Your task to perform on an android device: turn off translation in the chrome app Image 0: 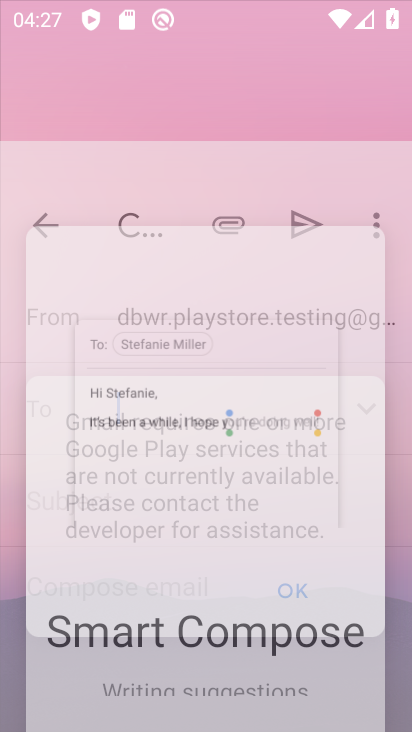
Step 0: press home button
Your task to perform on an android device: turn off translation in the chrome app Image 1: 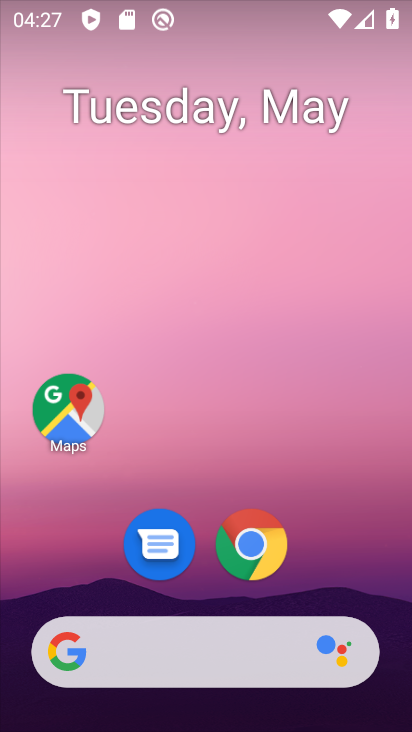
Step 1: click (252, 547)
Your task to perform on an android device: turn off translation in the chrome app Image 2: 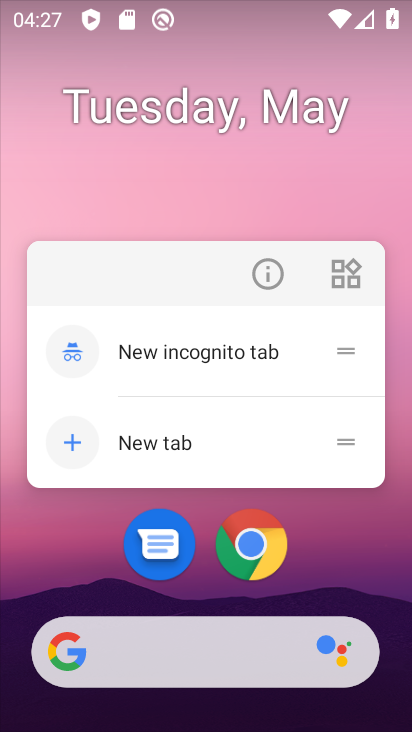
Step 2: click (252, 547)
Your task to perform on an android device: turn off translation in the chrome app Image 3: 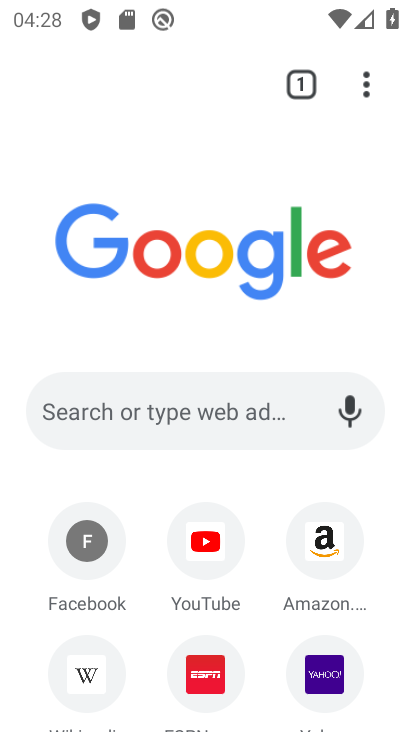
Step 3: click (357, 80)
Your task to perform on an android device: turn off translation in the chrome app Image 4: 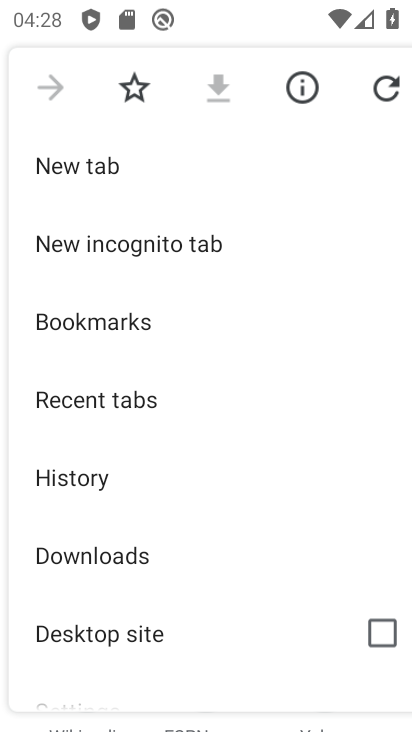
Step 4: drag from (119, 655) to (181, 133)
Your task to perform on an android device: turn off translation in the chrome app Image 5: 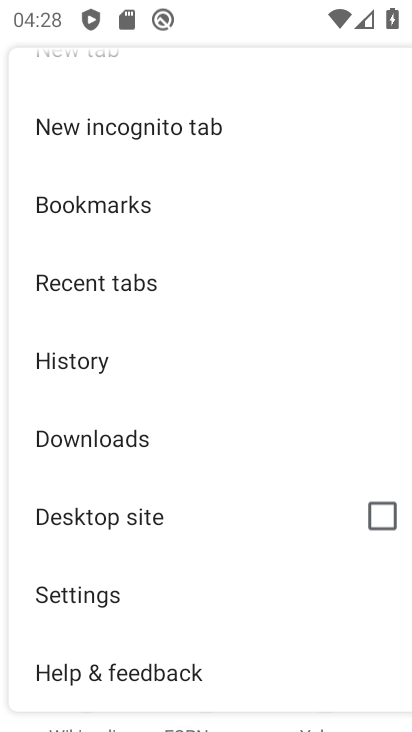
Step 5: click (89, 601)
Your task to perform on an android device: turn off translation in the chrome app Image 6: 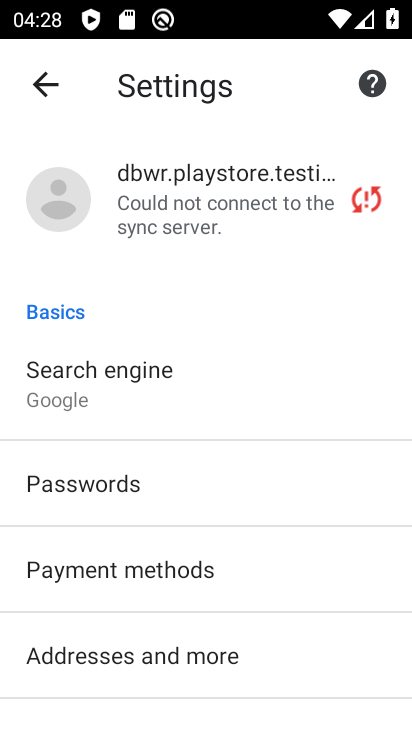
Step 6: drag from (104, 690) to (164, 269)
Your task to perform on an android device: turn off translation in the chrome app Image 7: 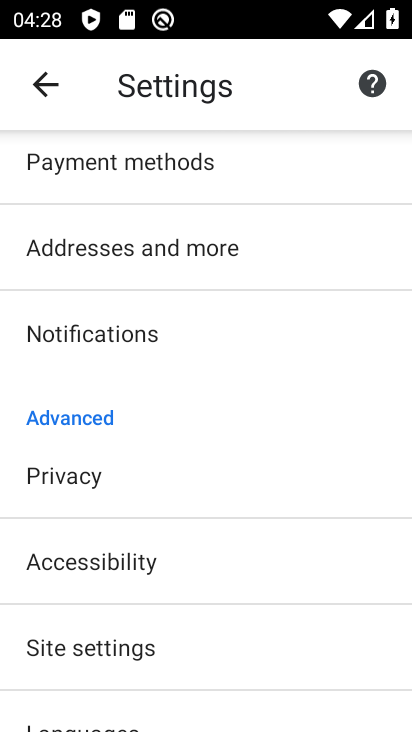
Step 7: drag from (98, 692) to (174, 298)
Your task to perform on an android device: turn off translation in the chrome app Image 8: 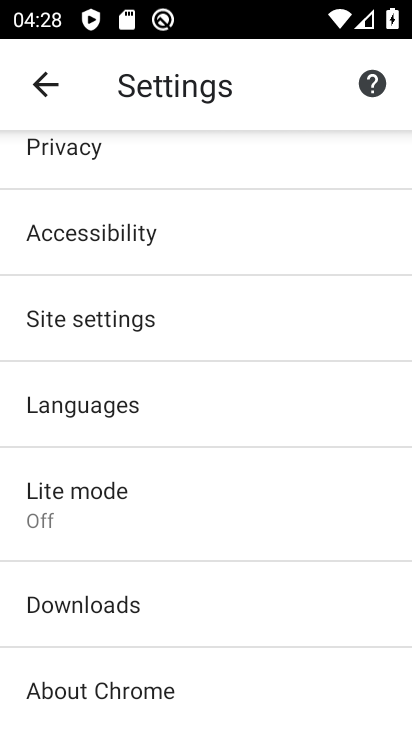
Step 8: click (107, 406)
Your task to perform on an android device: turn off translation in the chrome app Image 9: 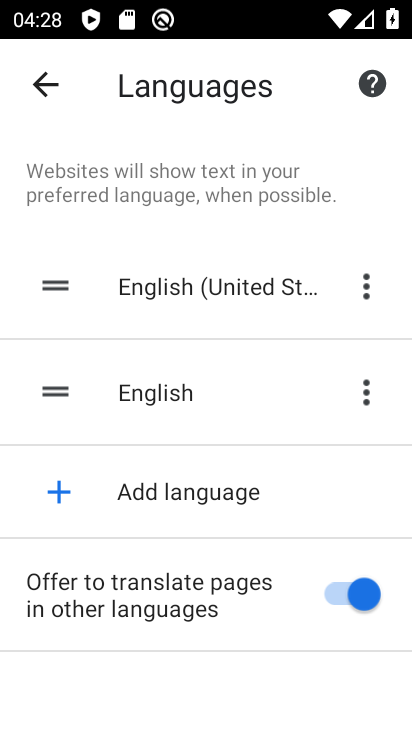
Step 9: click (339, 592)
Your task to perform on an android device: turn off translation in the chrome app Image 10: 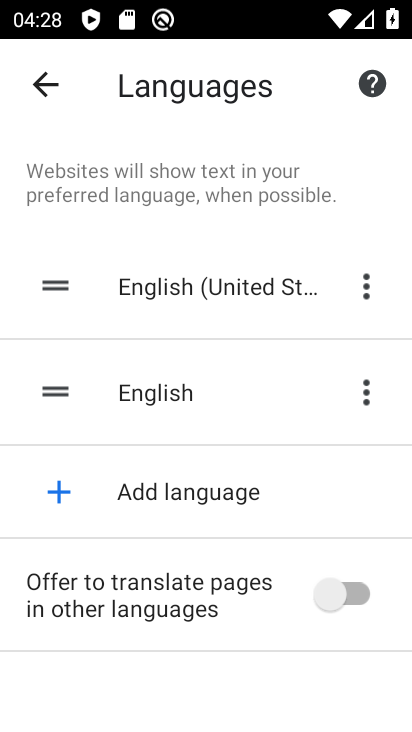
Step 10: task complete